Your task to perform on an android device: set the stopwatch Image 0: 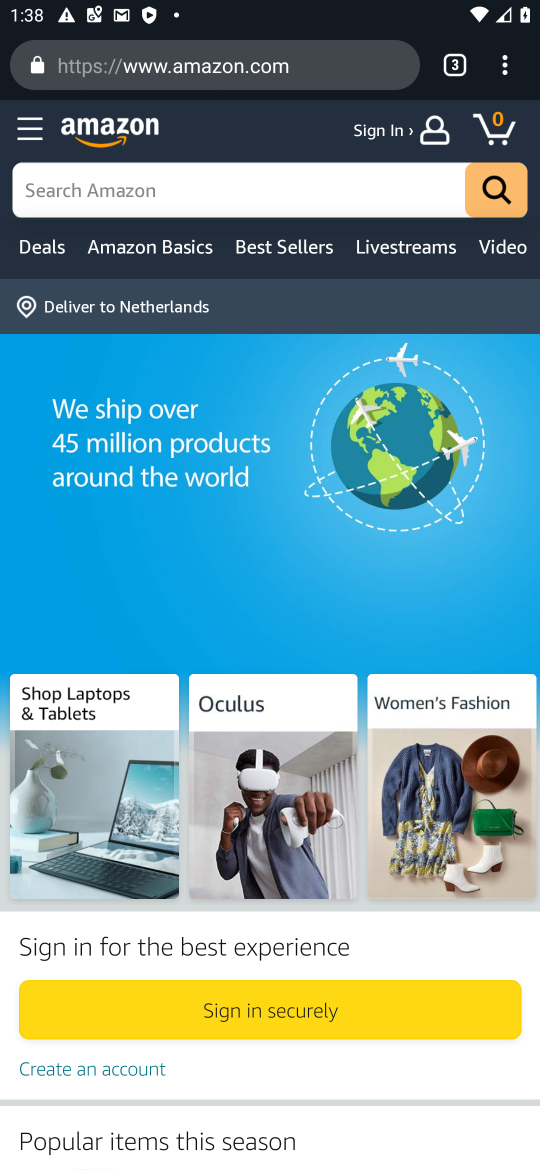
Step 0: press home button
Your task to perform on an android device: set the stopwatch Image 1: 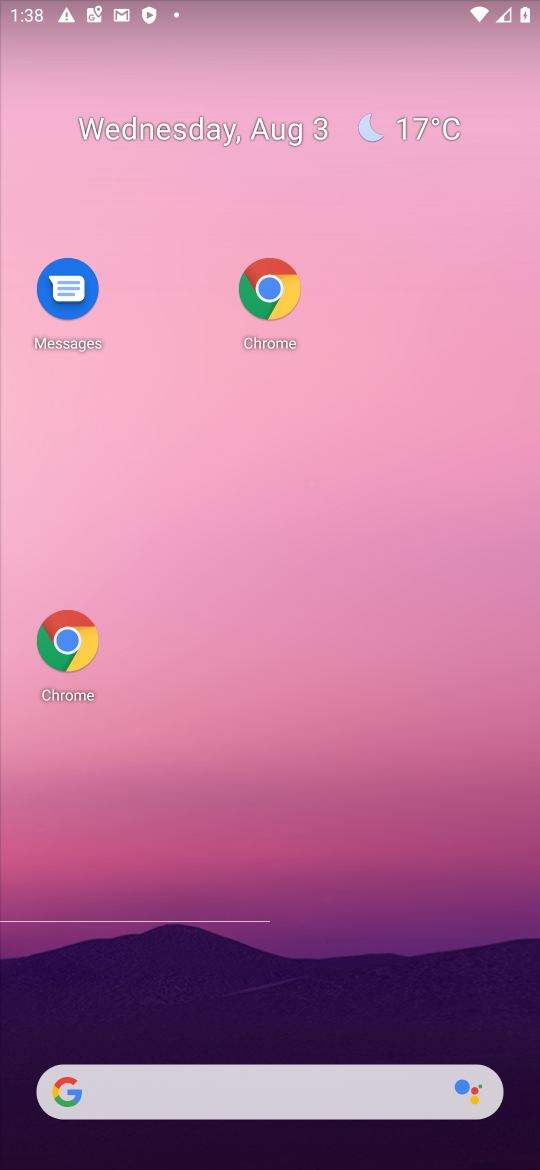
Step 1: drag from (403, 1015) to (533, 485)
Your task to perform on an android device: set the stopwatch Image 2: 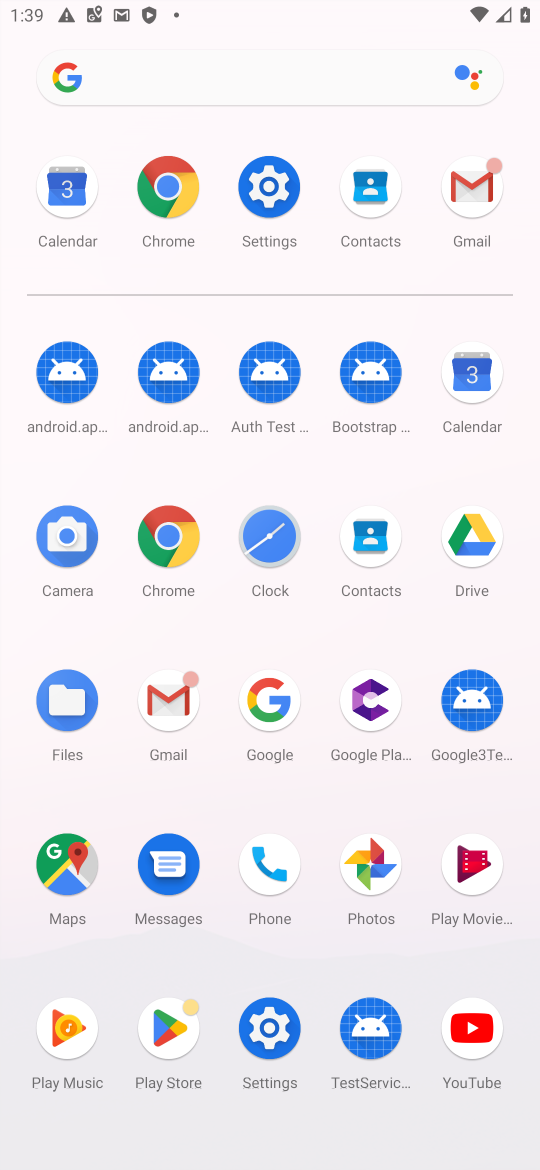
Step 2: click (262, 540)
Your task to perform on an android device: set the stopwatch Image 3: 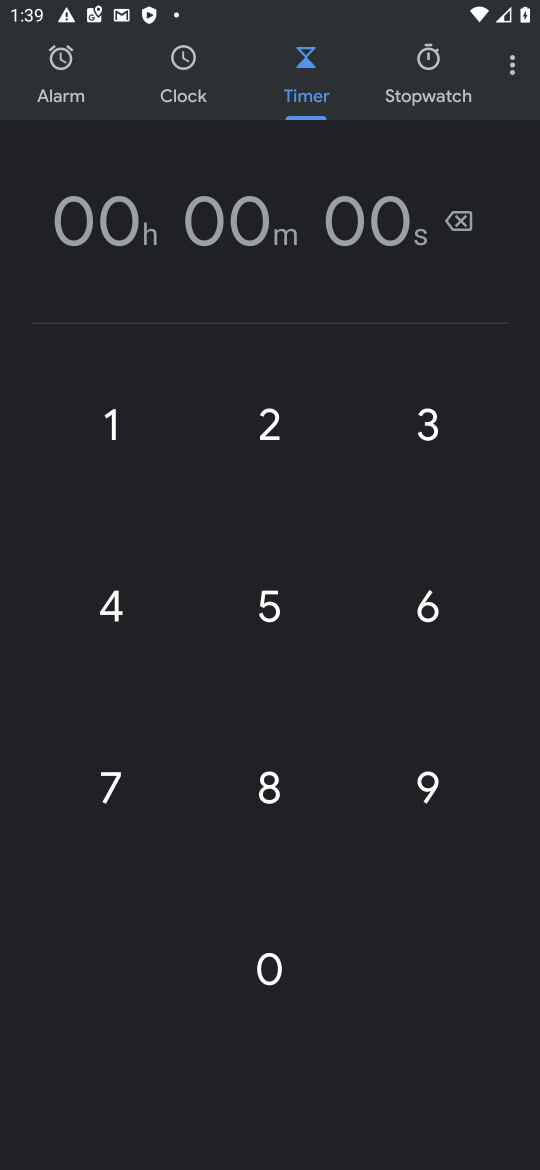
Step 3: click (408, 112)
Your task to perform on an android device: set the stopwatch Image 4: 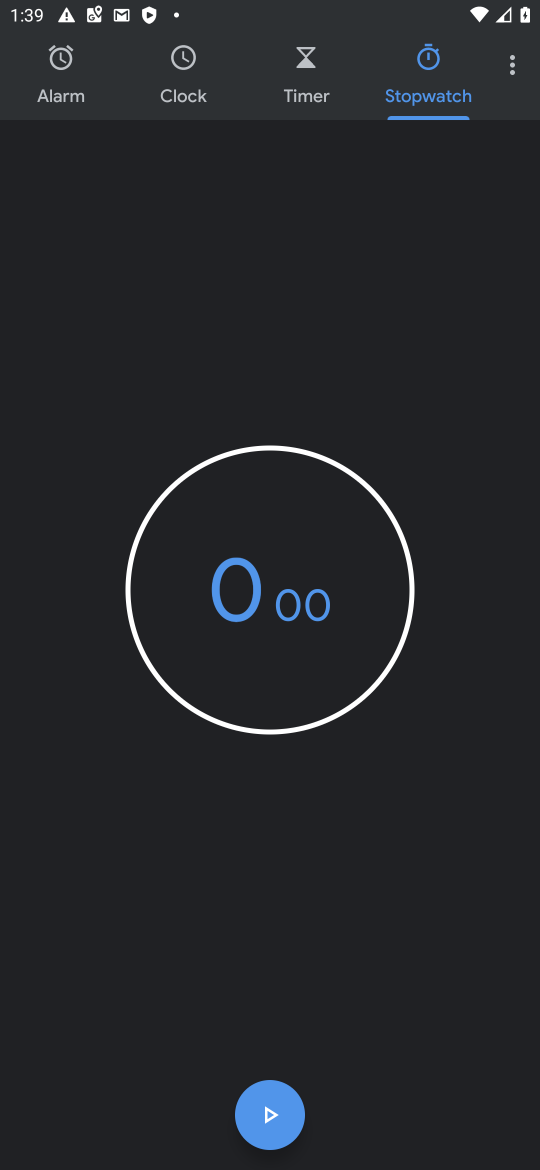
Step 4: task complete